Your task to perform on an android device: Open location settings Image 0: 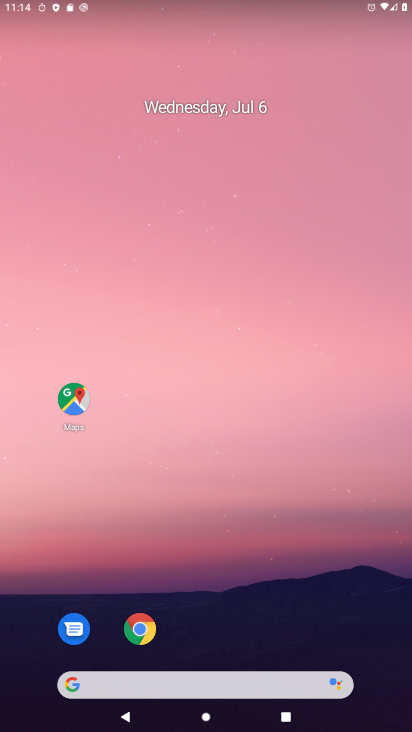
Step 0: drag from (216, 624) to (222, 113)
Your task to perform on an android device: Open location settings Image 1: 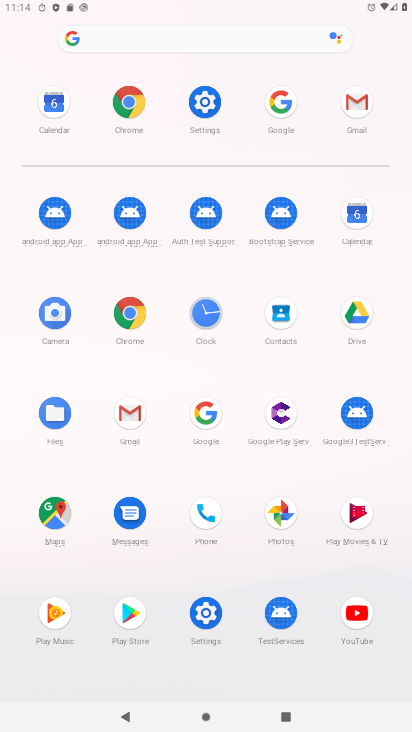
Step 1: click (202, 97)
Your task to perform on an android device: Open location settings Image 2: 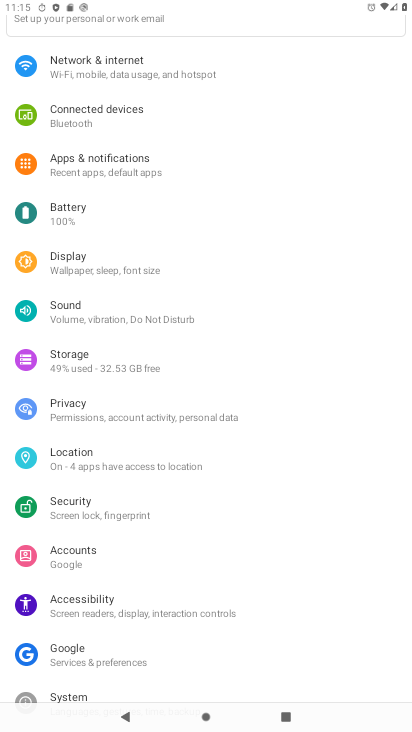
Step 2: click (85, 458)
Your task to perform on an android device: Open location settings Image 3: 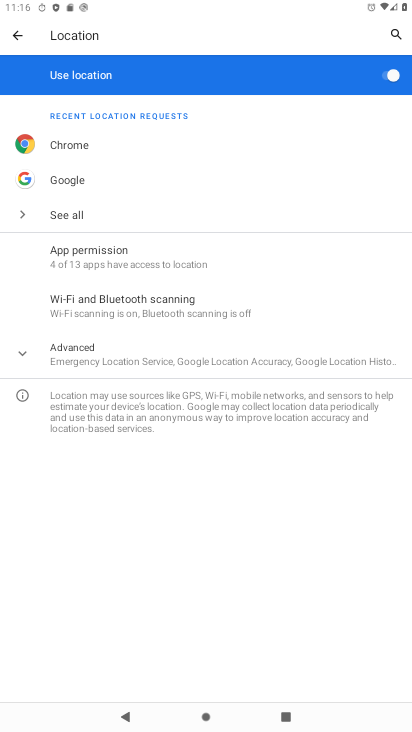
Step 3: task complete